Your task to perform on an android device: uninstall "VLC for Android" Image 0: 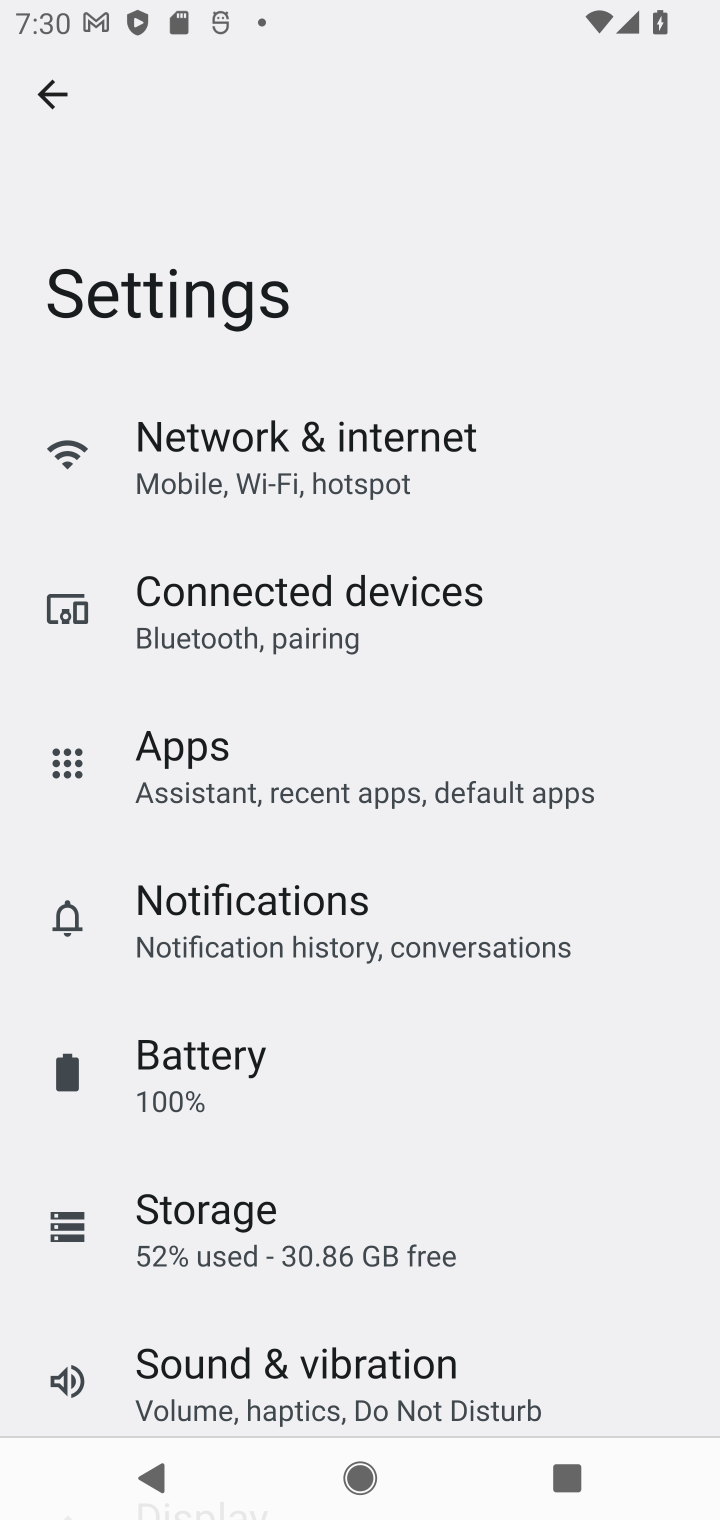
Step 0: press back button
Your task to perform on an android device: uninstall "VLC for Android" Image 1: 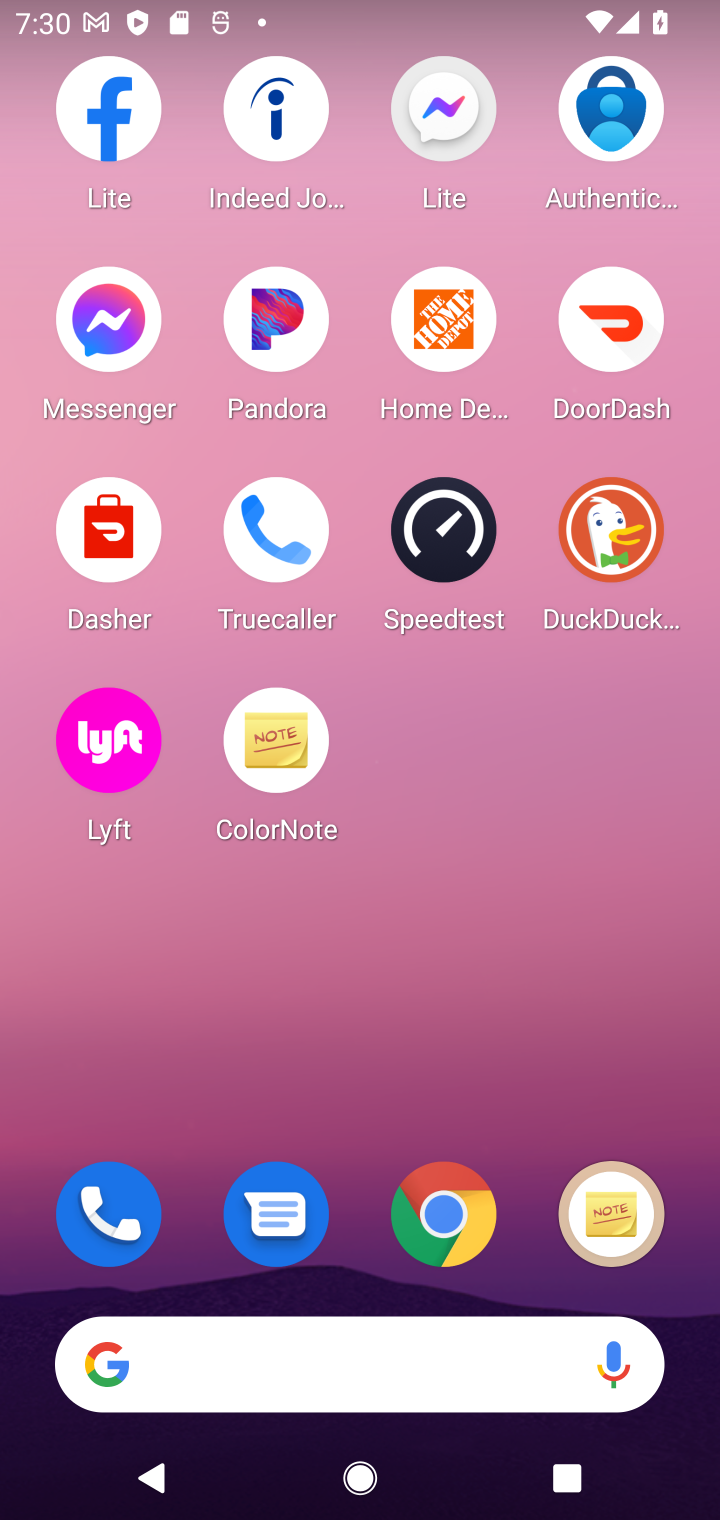
Step 1: drag from (291, 1022) to (423, 60)
Your task to perform on an android device: uninstall "VLC for Android" Image 2: 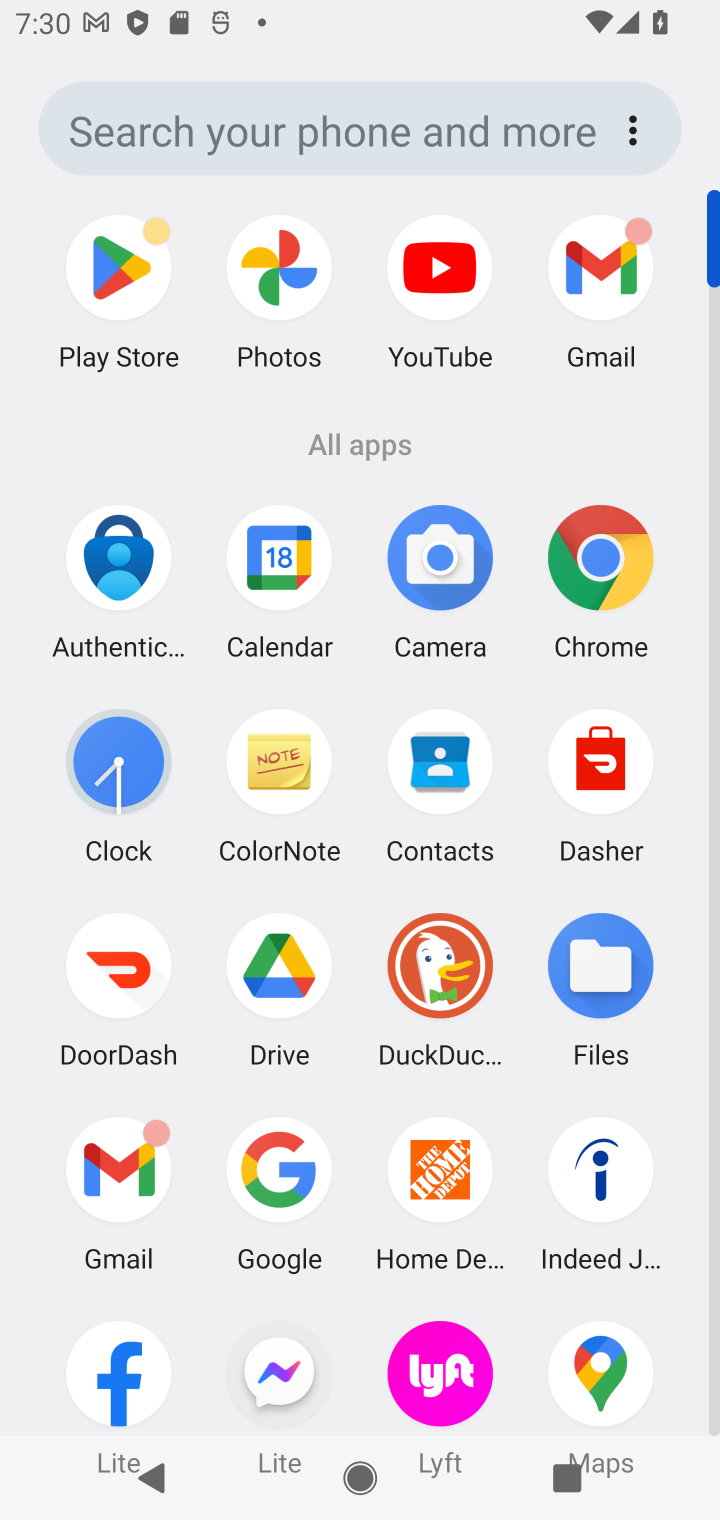
Step 2: click (91, 235)
Your task to perform on an android device: uninstall "VLC for Android" Image 3: 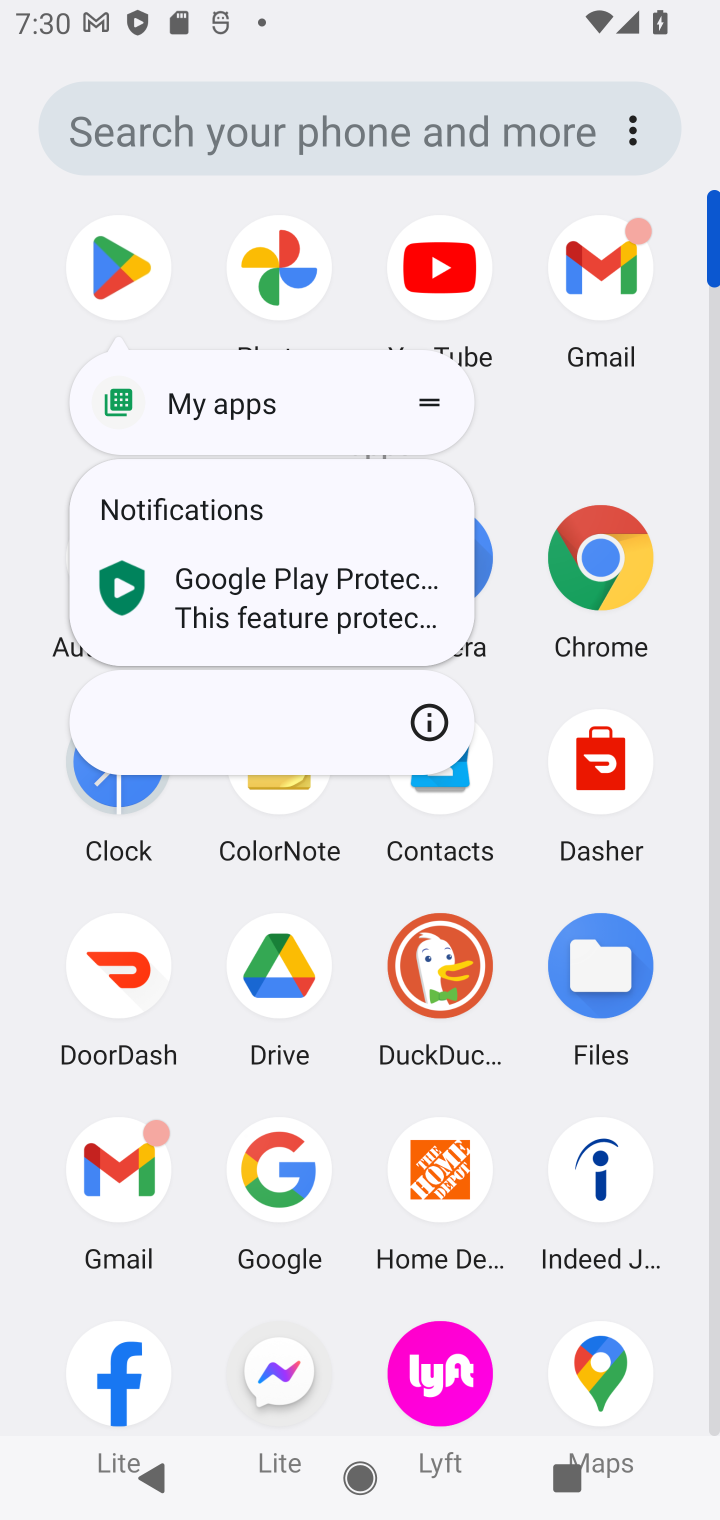
Step 3: click (105, 250)
Your task to perform on an android device: uninstall "VLC for Android" Image 4: 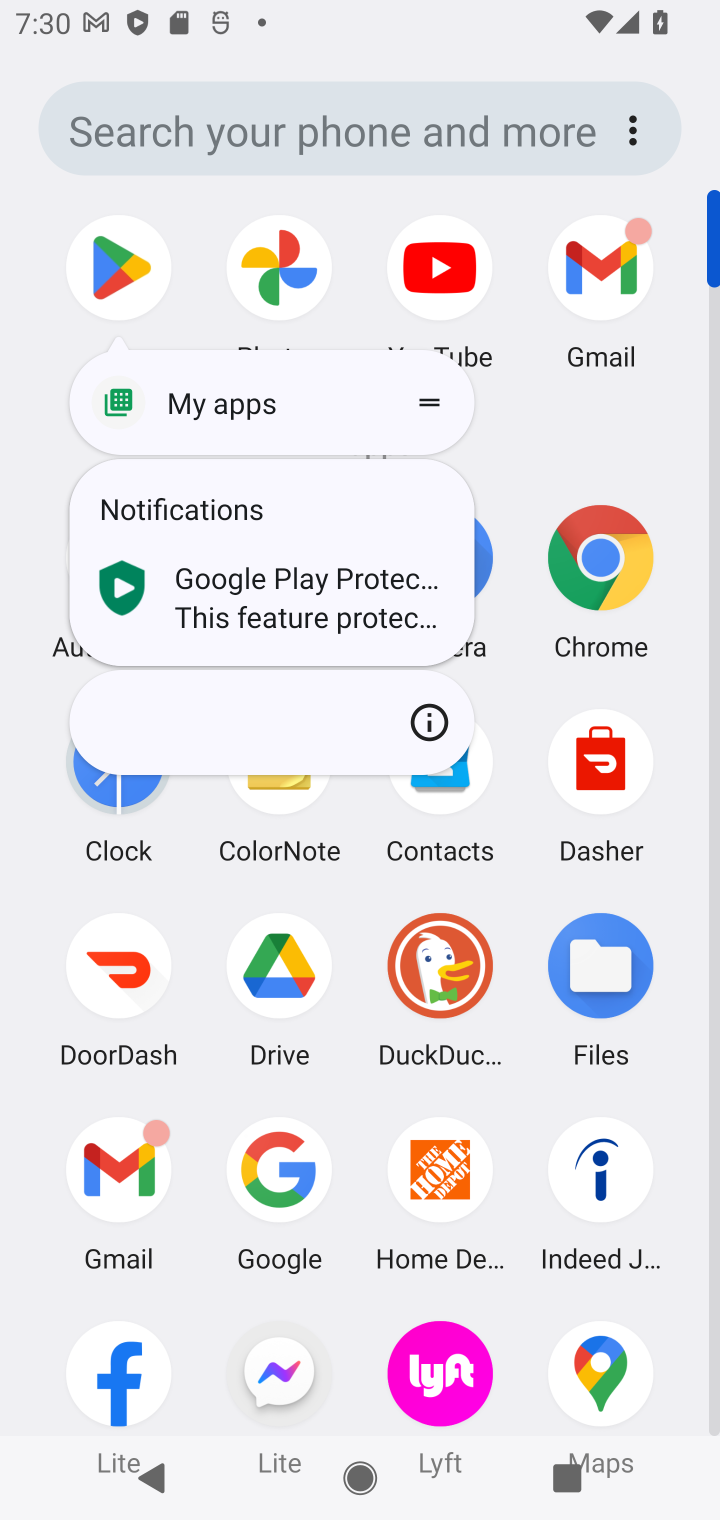
Step 4: click (111, 254)
Your task to perform on an android device: uninstall "VLC for Android" Image 5: 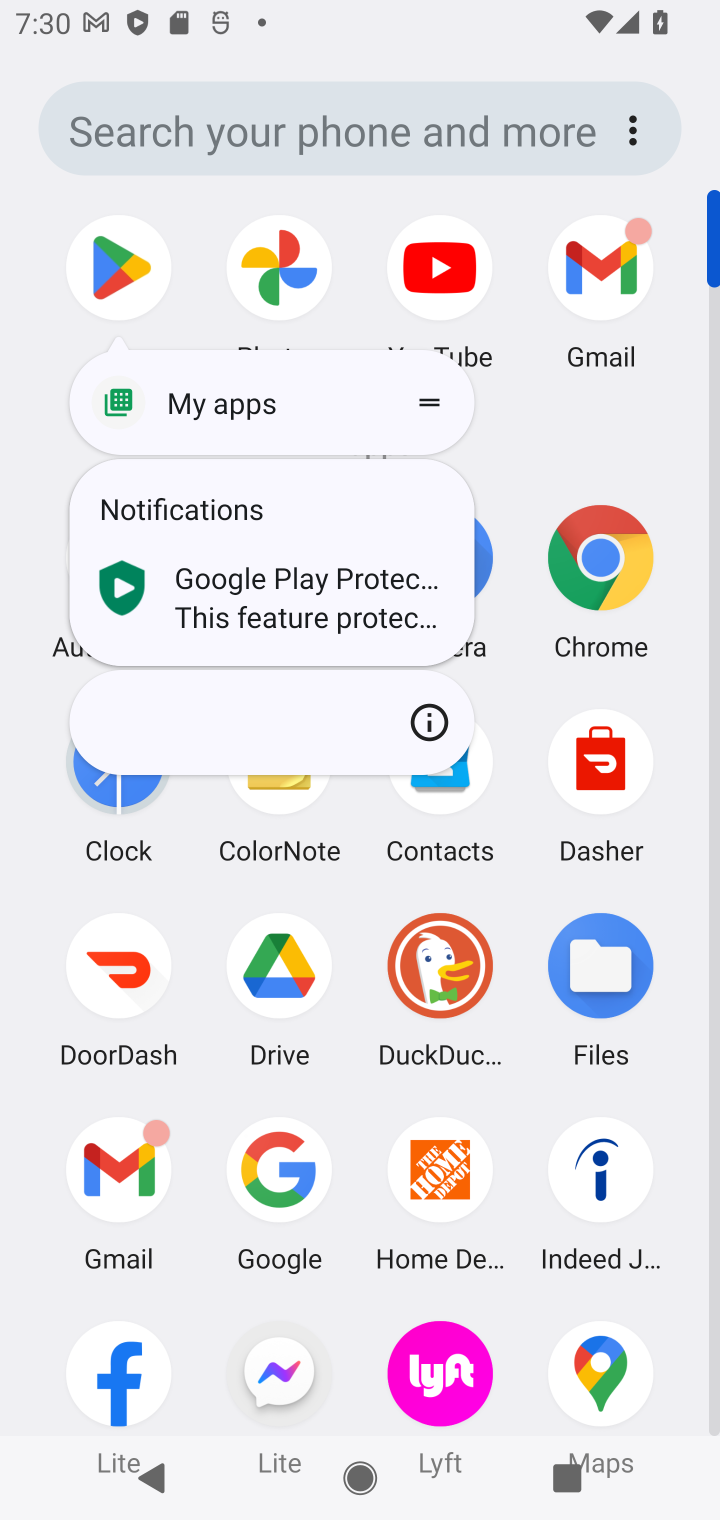
Step 5: click (121, 270)
Your task to perform on an android device: uninstall "VLC for Android" Image 6: 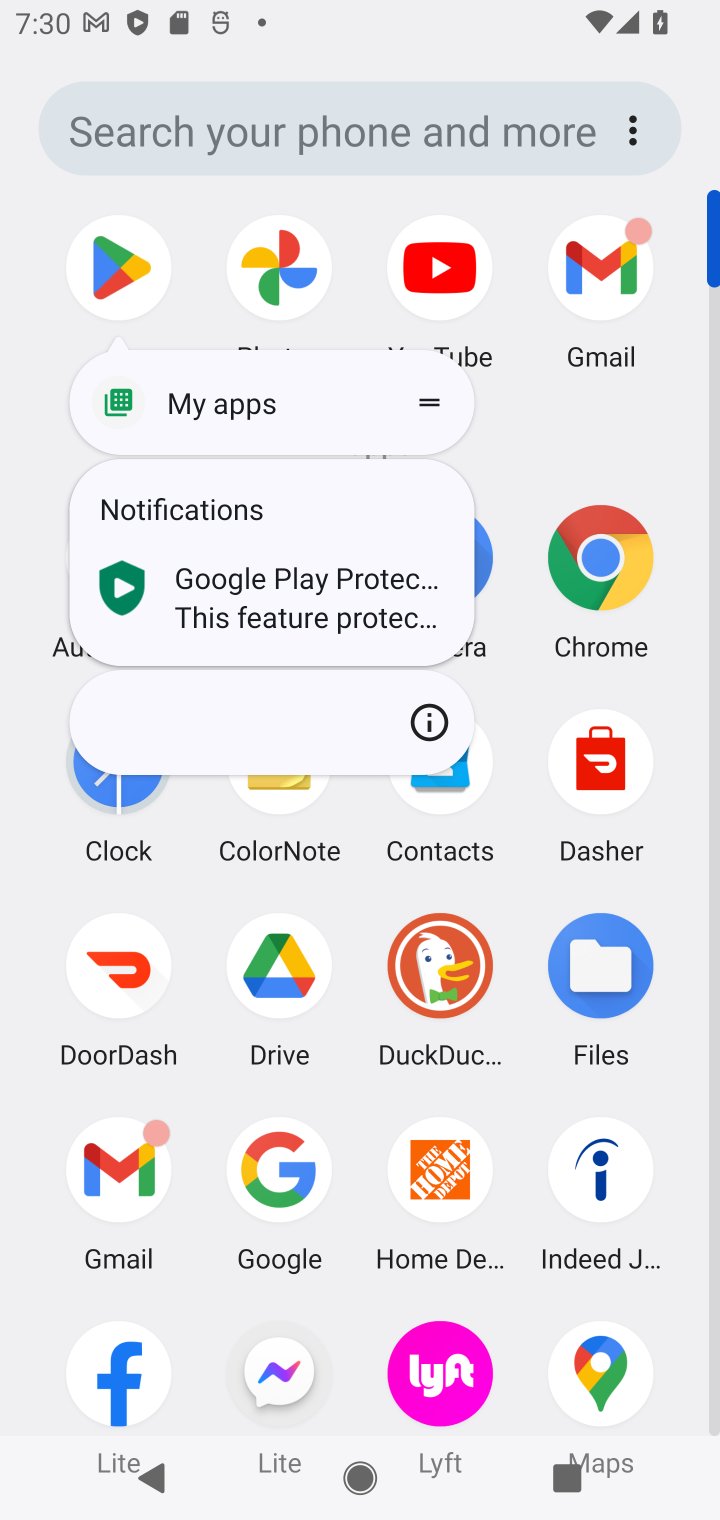
Step 6: click (100, 262)
Your task to perform on an android device: uninstall "VLC for Android" Image 7: 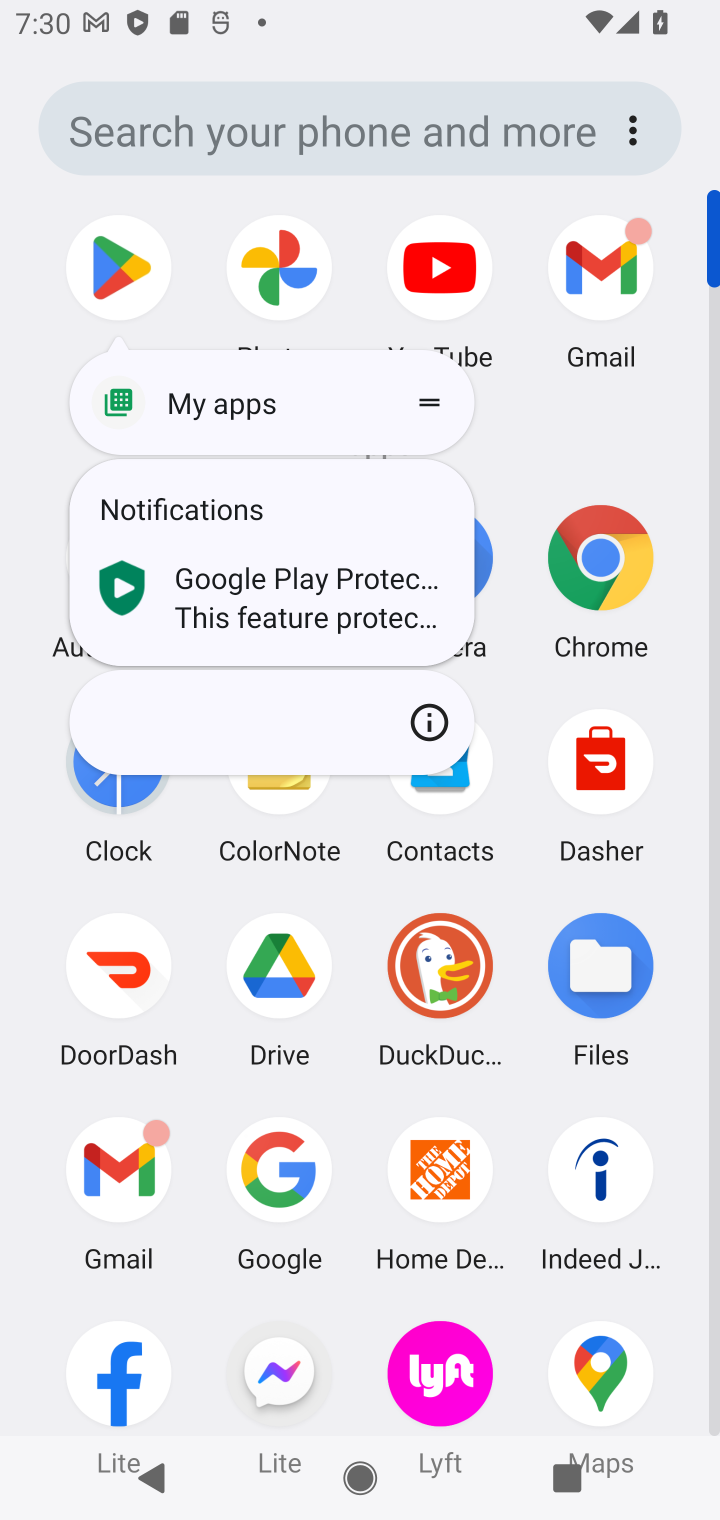
Step 7: click (114, 252)
Your task to perform on an android device: uninstall "VLC for Android" Image 8: 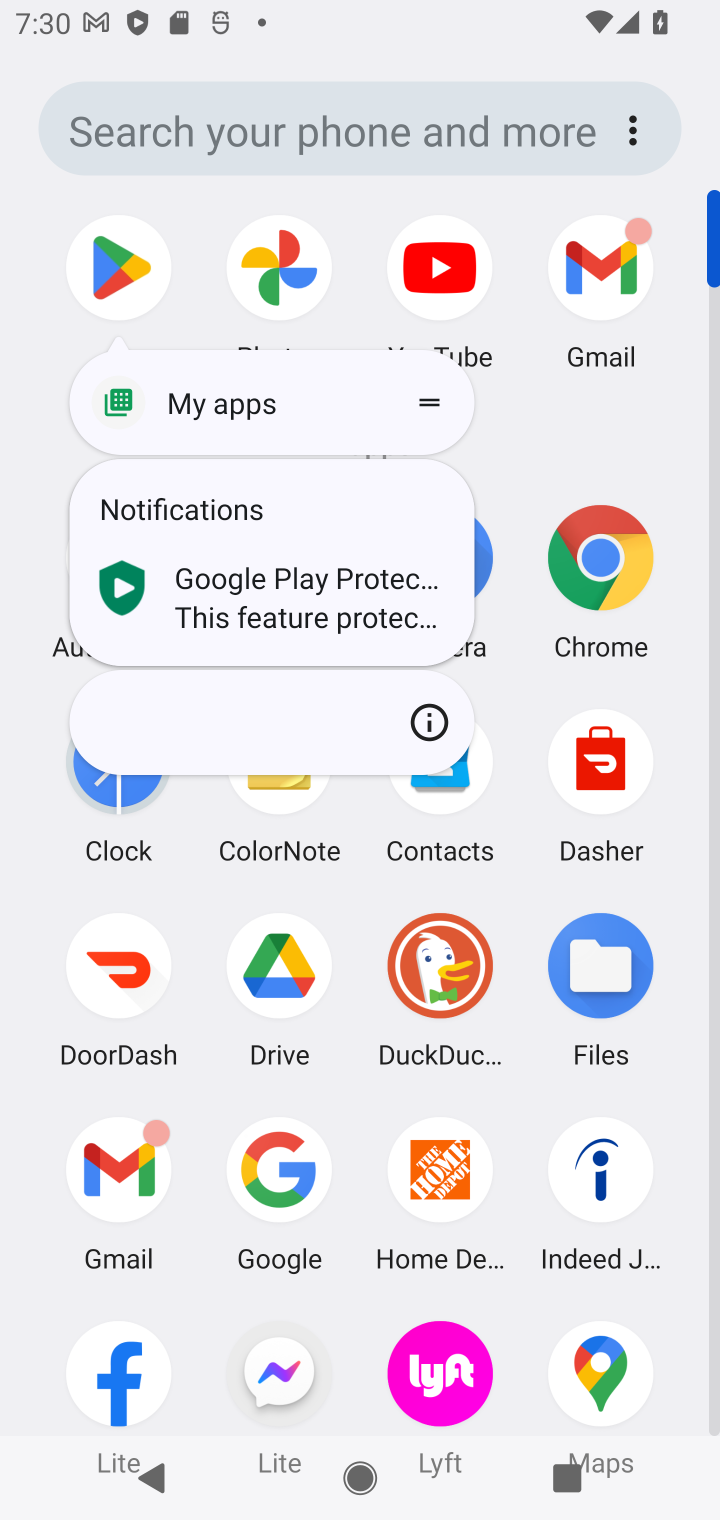
Step 8: click (129, 271)
Your task to perform on an android device: uninstall "VLC for Android" Image 9: 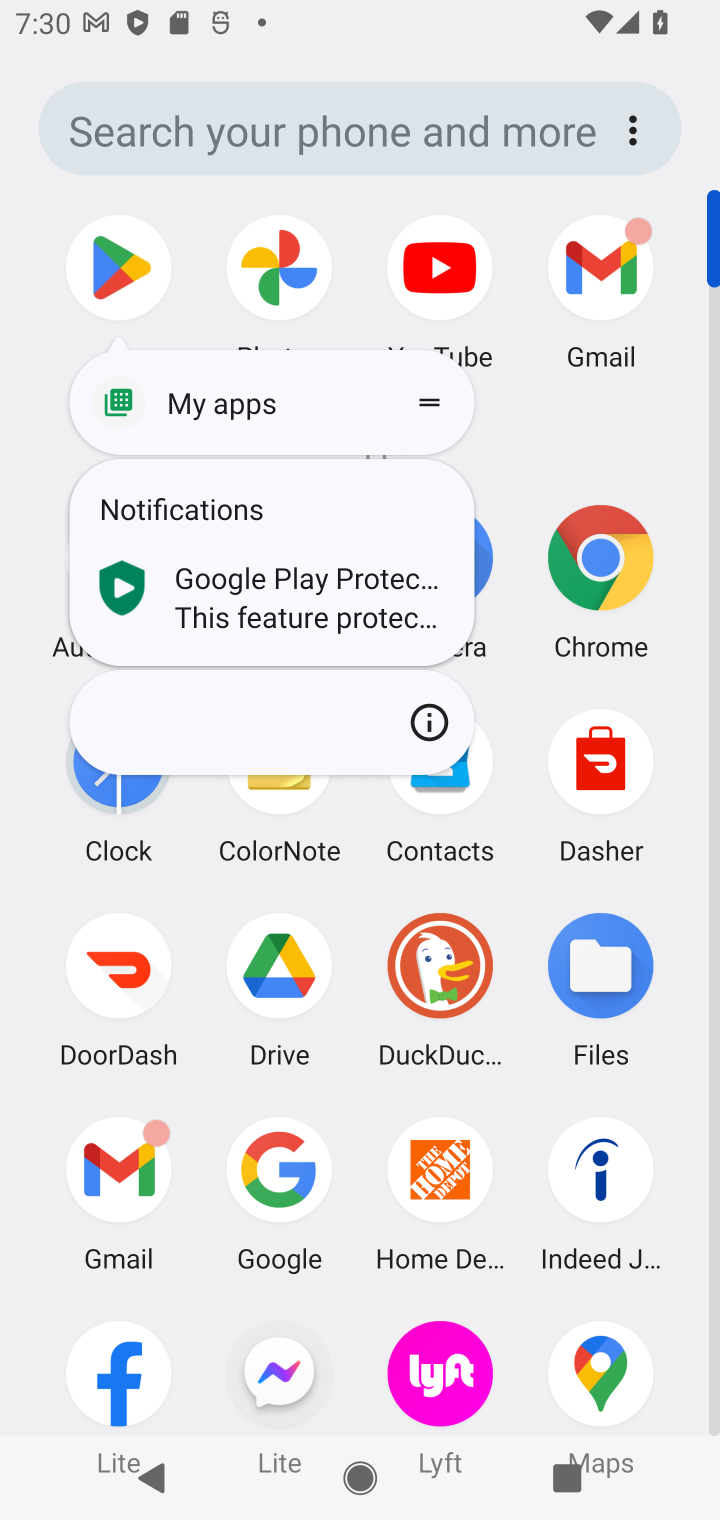
Step 9: click (125, 269)
Your task to perform on an android device: uninstall "VLC for Android" Image 10: 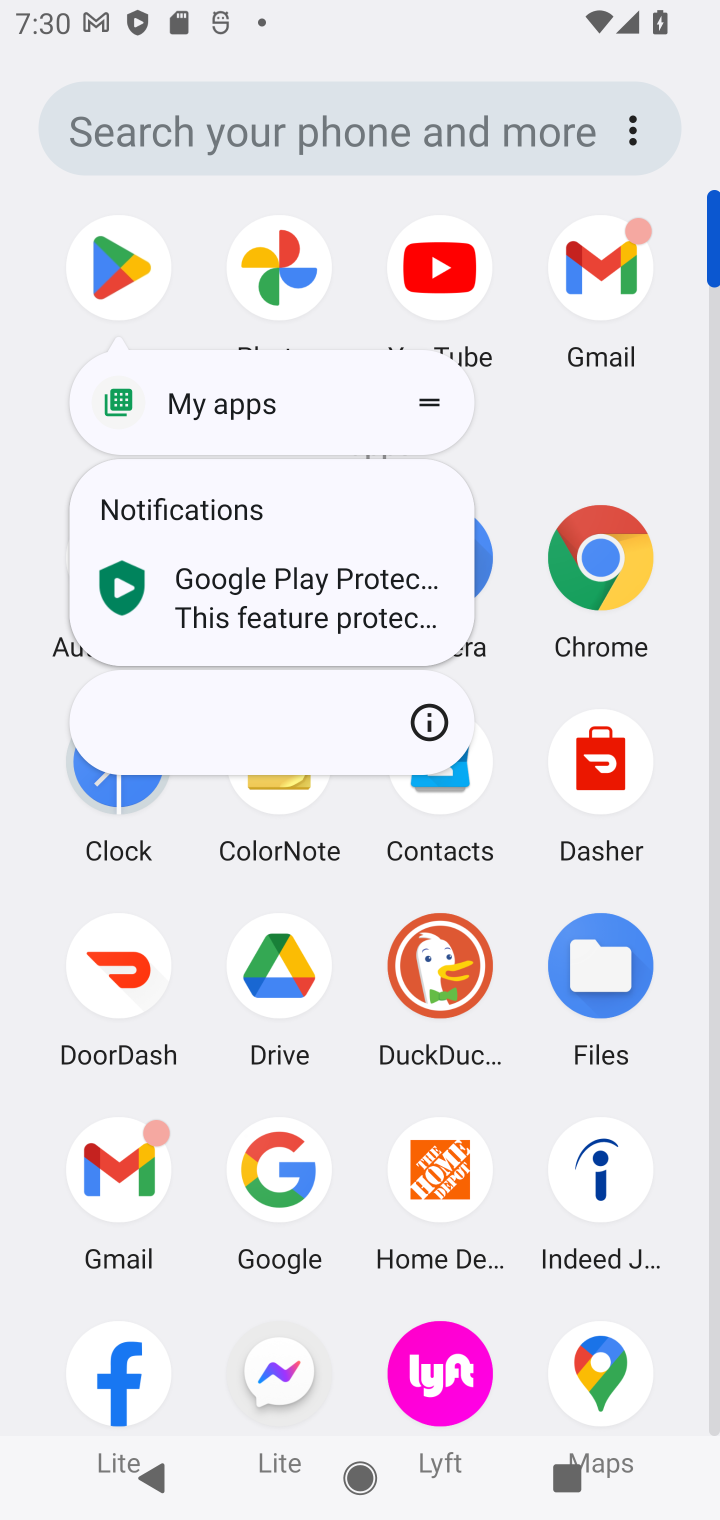
Step 10: click (128, 259)
Your task to perform on an android device: uninstall "VLC for Android" Image 11: 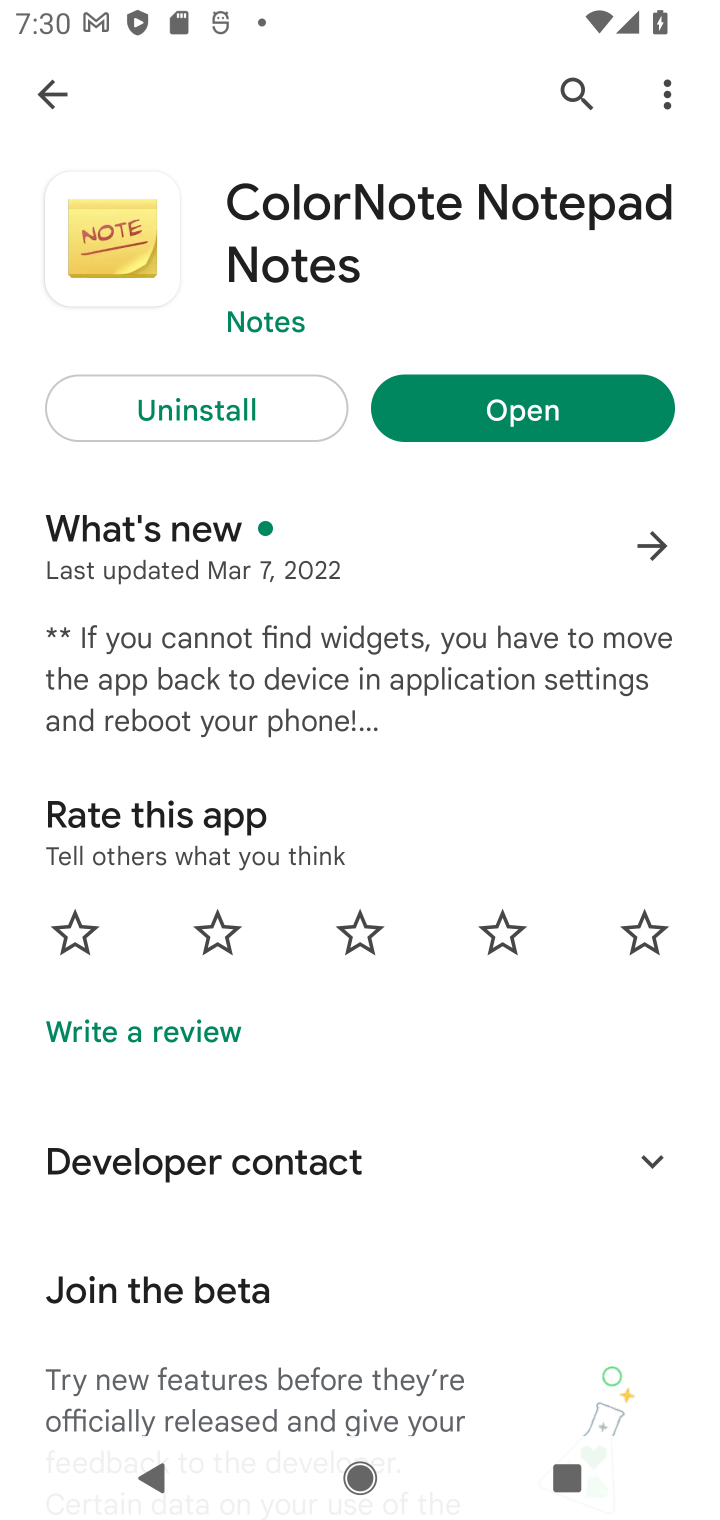
Step 11: click (525, 59)
Your task to perform on an android device: uninstall "VLC for Android" Image 12: 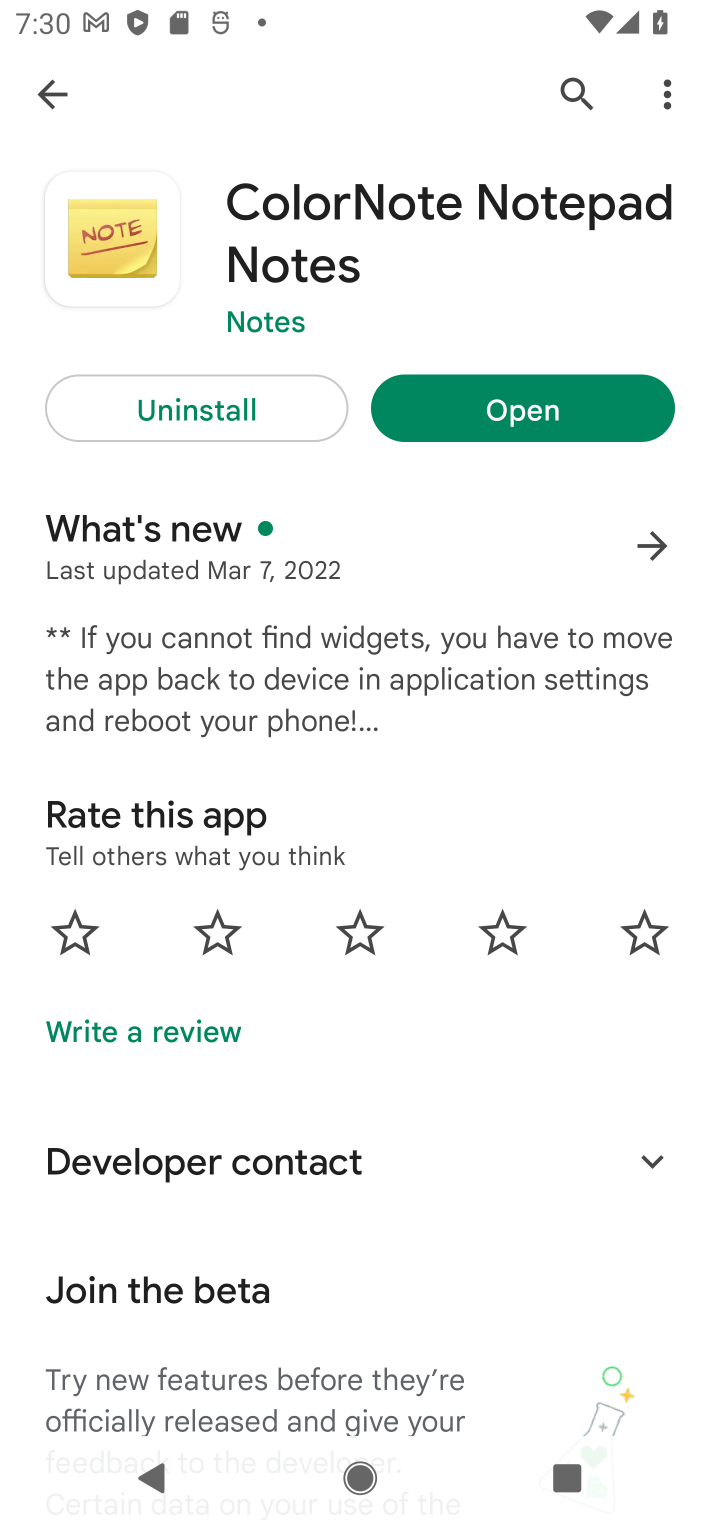
Step 12: click (560, 67)
Your task to perform on an android device: uninstall "VLC for Android" Image 13: 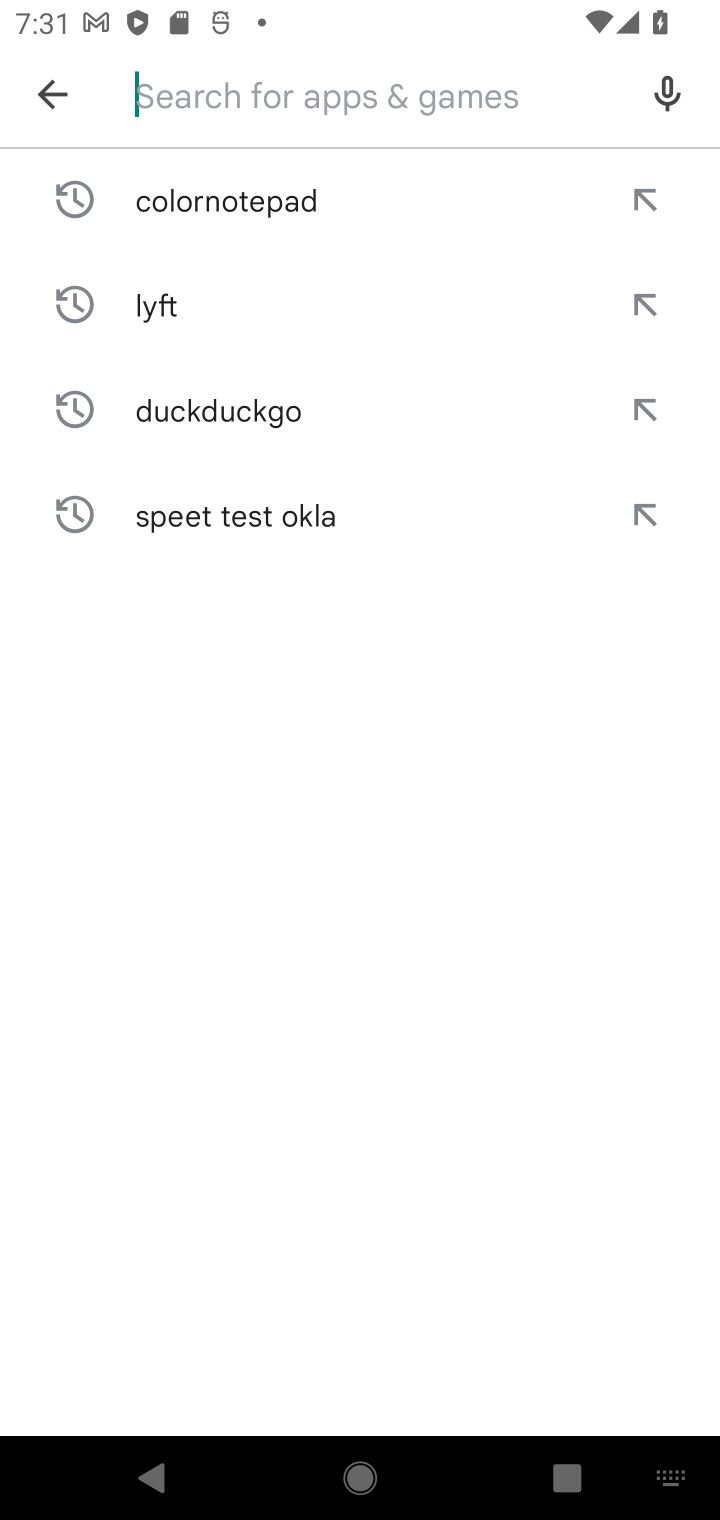
Step 13: click (221, 71)
Your task to perform on an android device: uninstall "VLC for Android" Image 14: 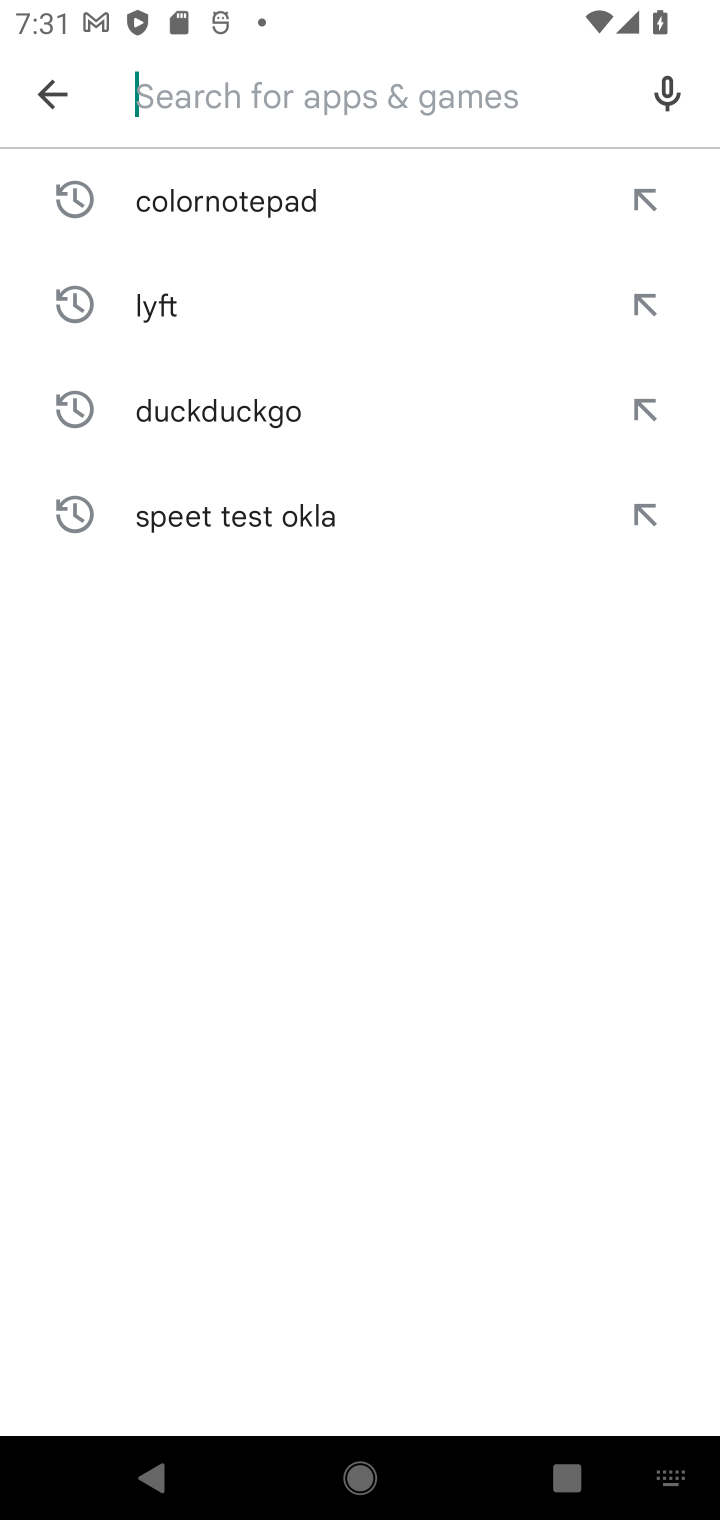
Step 14: type "vlc"
Your task to perform on an android device: uninstall "VLC for Android" Image 15: 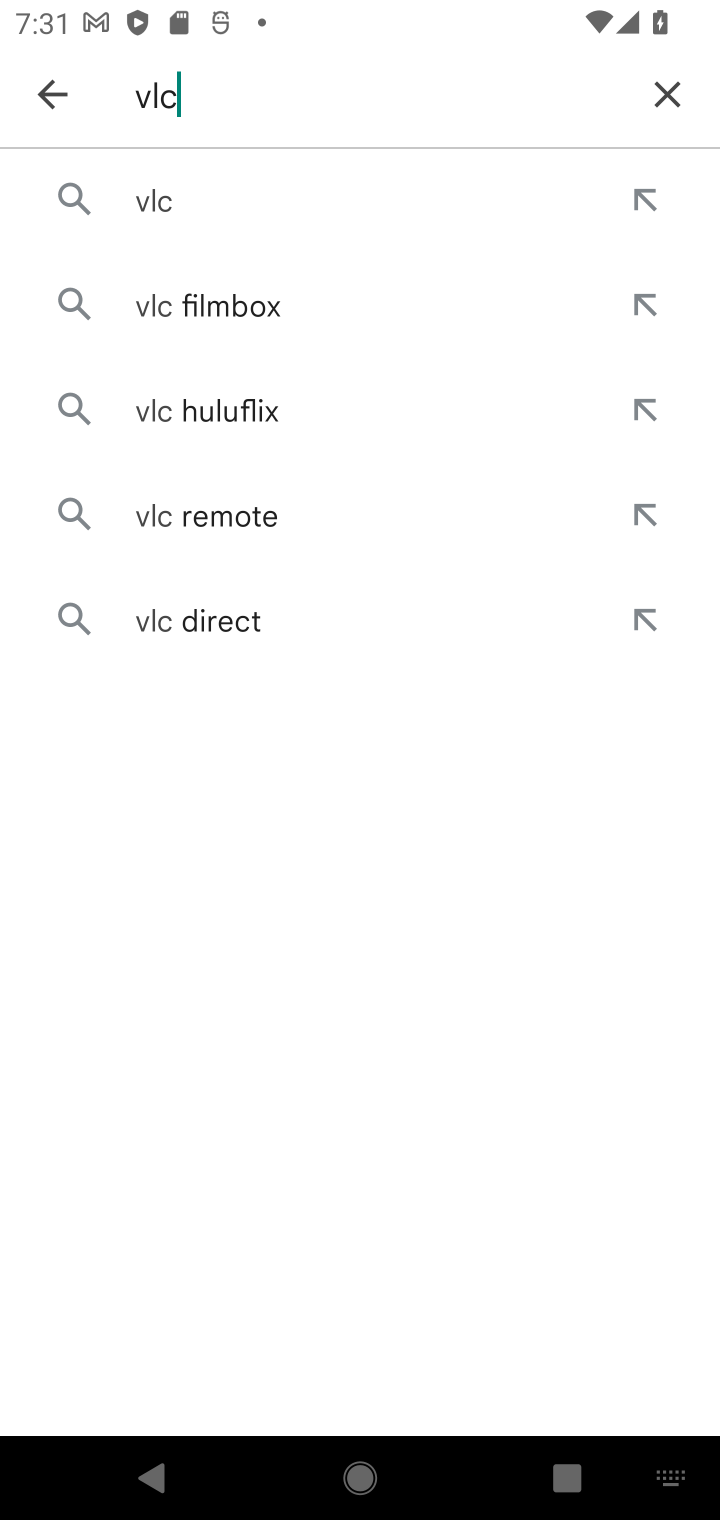
Step 15: click (207, 192)
Your task to perform on an android device: uninstall "VLC for Android" Image 16: 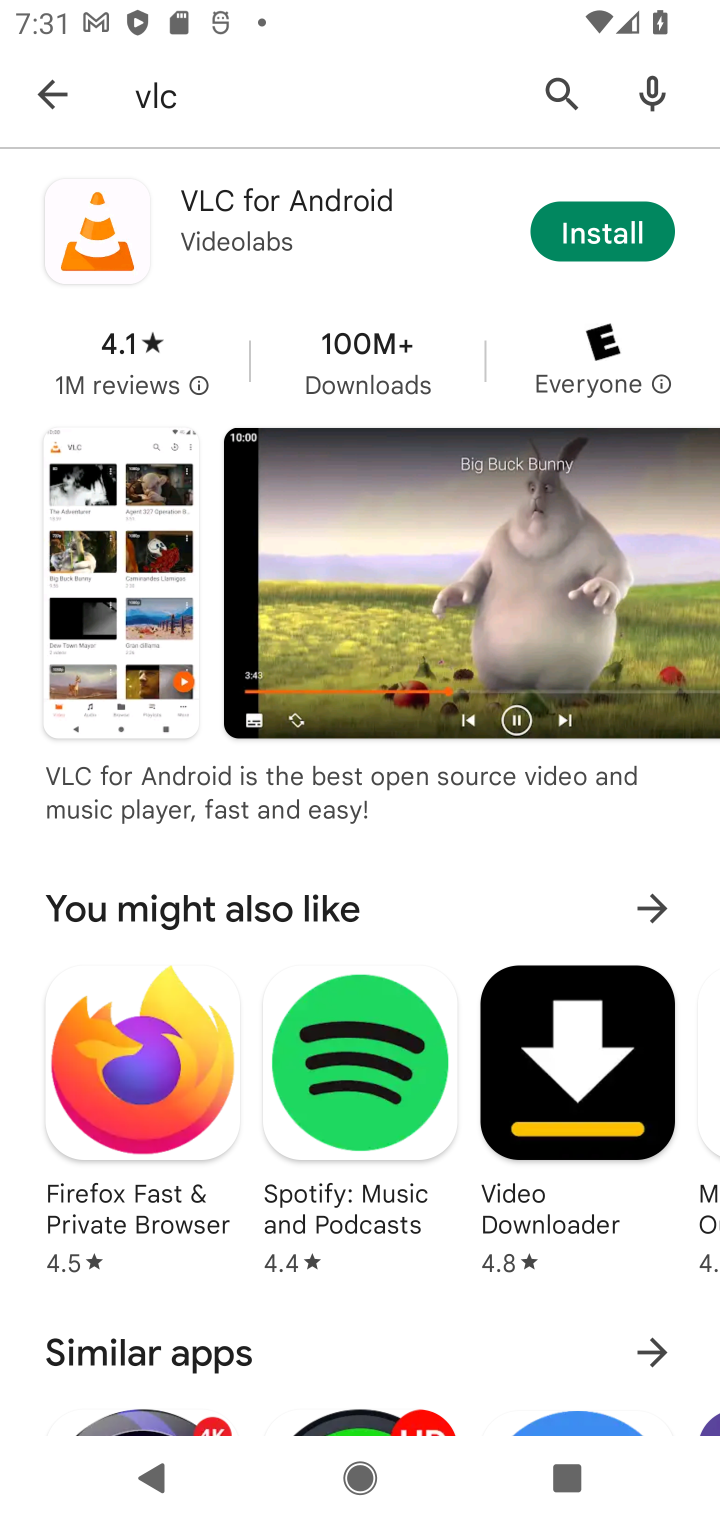
Step 16: task complete